Your task to perform on an android device: Open calendar and show me the second week of next month Image 0: 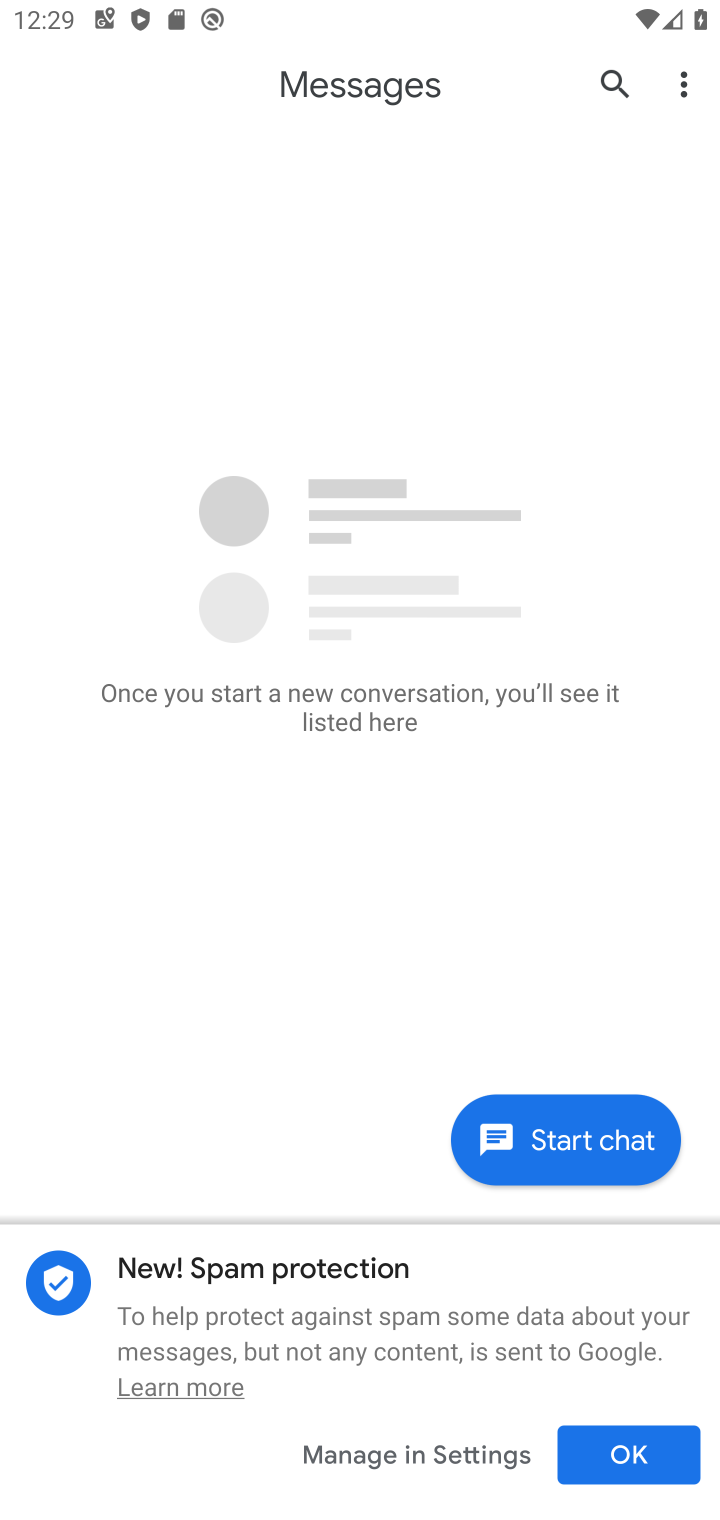
Step 0: press back button
Your task to perform on an android device: Open calendar and show me the second week of next month Image 1: 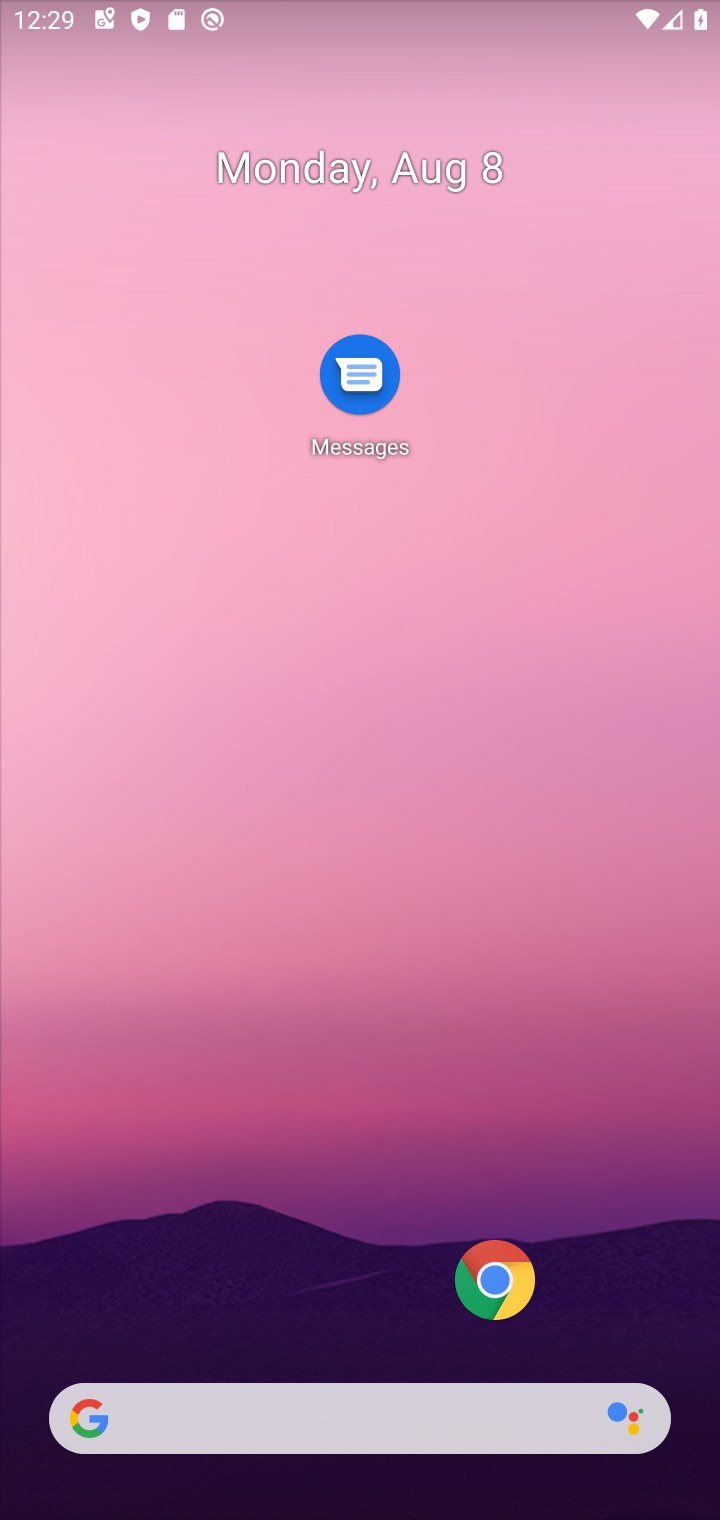
Step 1: drag from (305, 999) to (472, 2)
Your task to perform on an android device: Open calendar and show me the second week of next month Image 2: 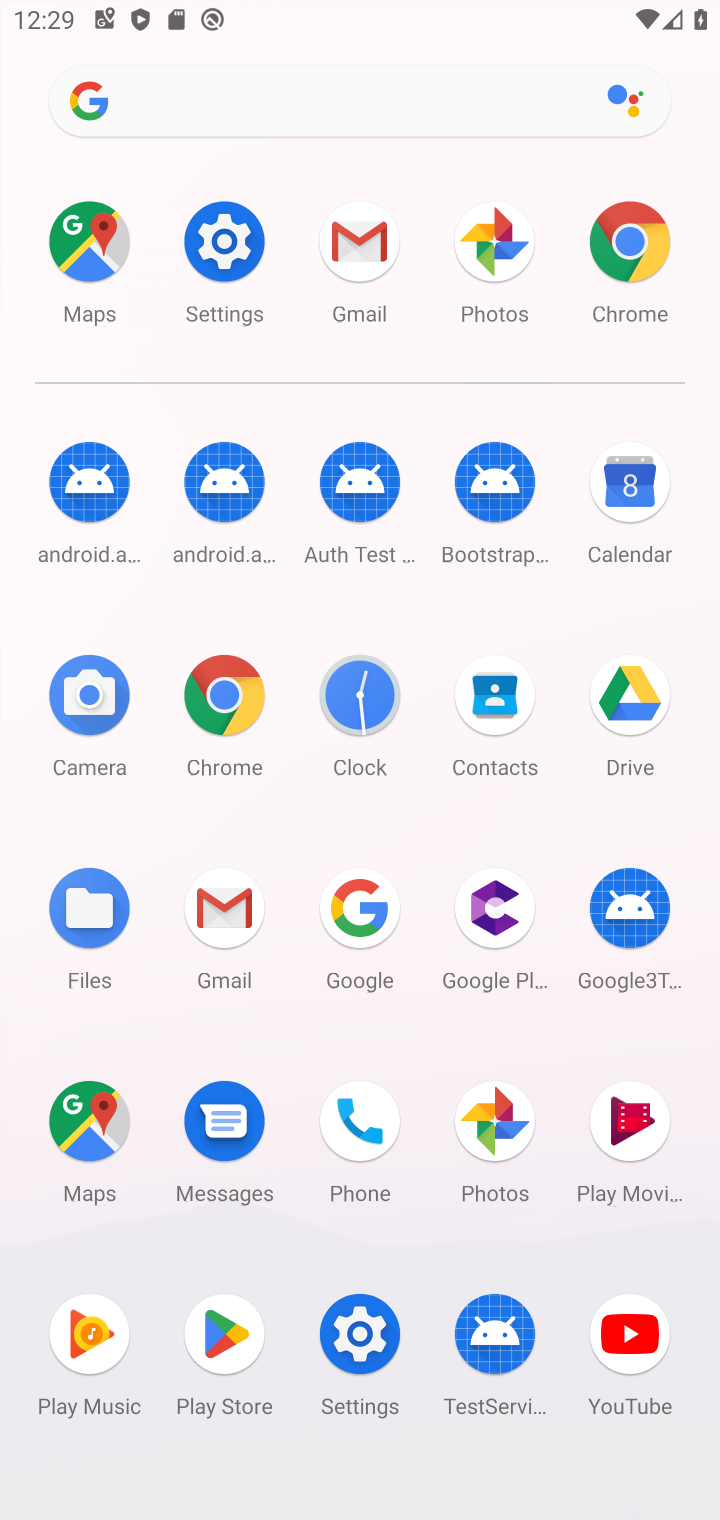
Step 2: click (624, 531)
Your task to perform on an android device: Open calendar and show me the second week of next month Image 3: 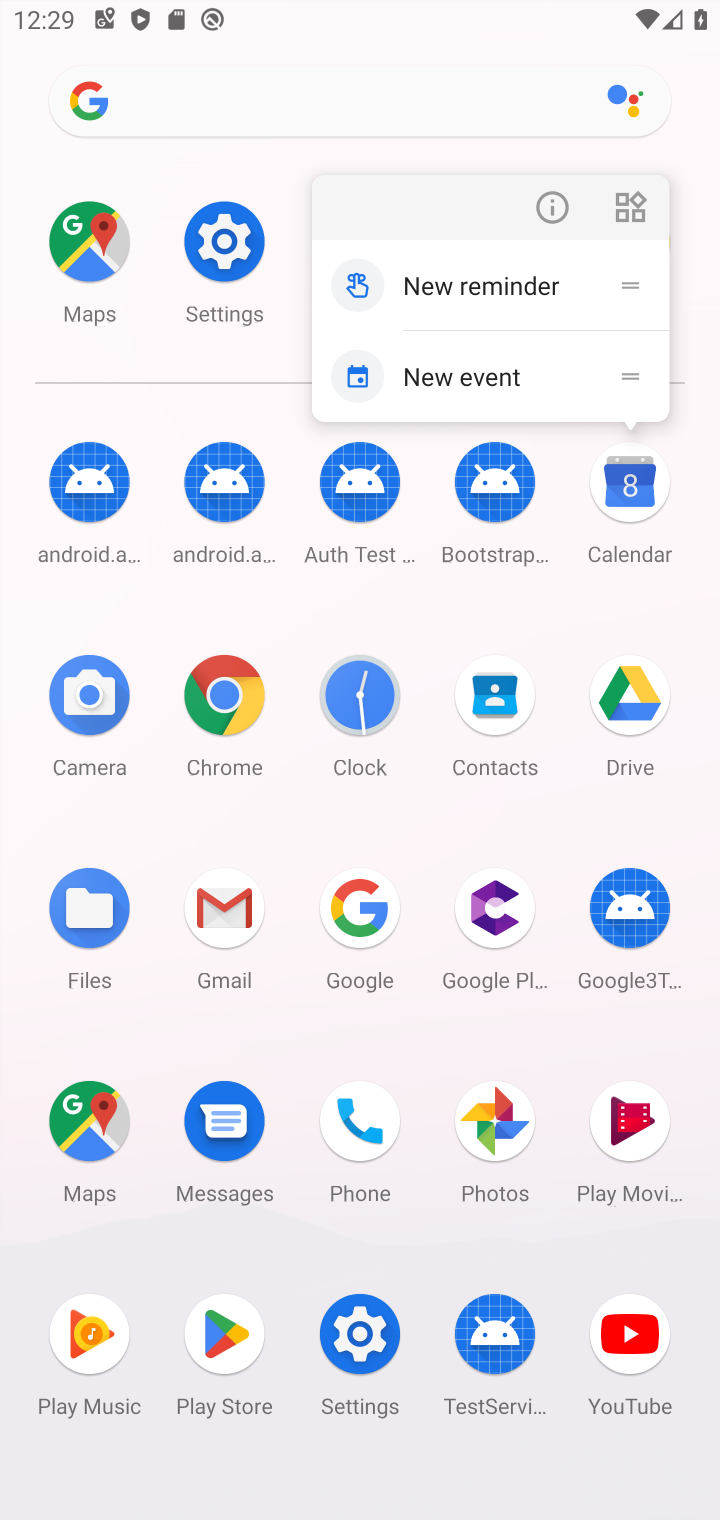
Step 3: click (650, 483)
Your task to perform on an android device: Open calendar and show me the second week of next month Image 4: 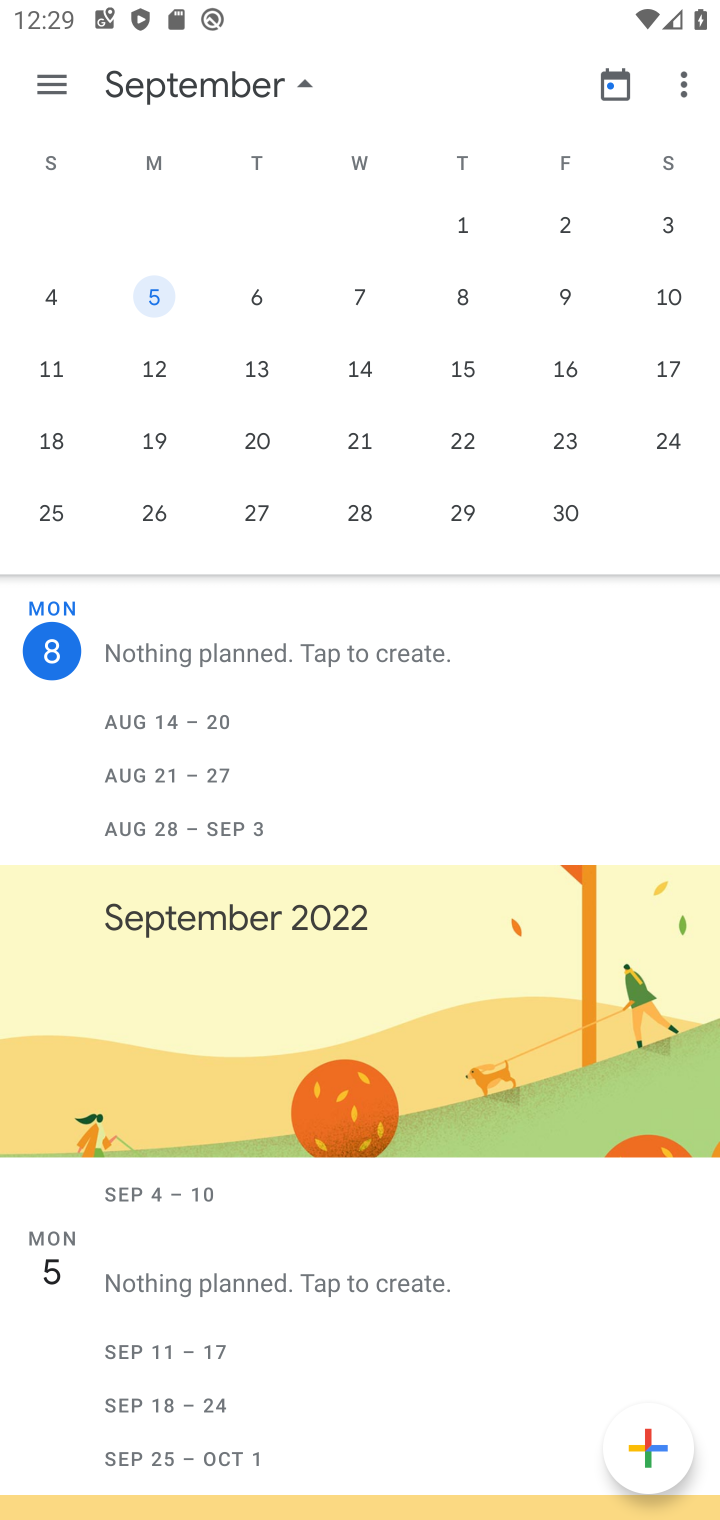
Step 4: click (667, 356)
Your task to perform on an android device: Open calendar and show me the second week of next month Image 5: 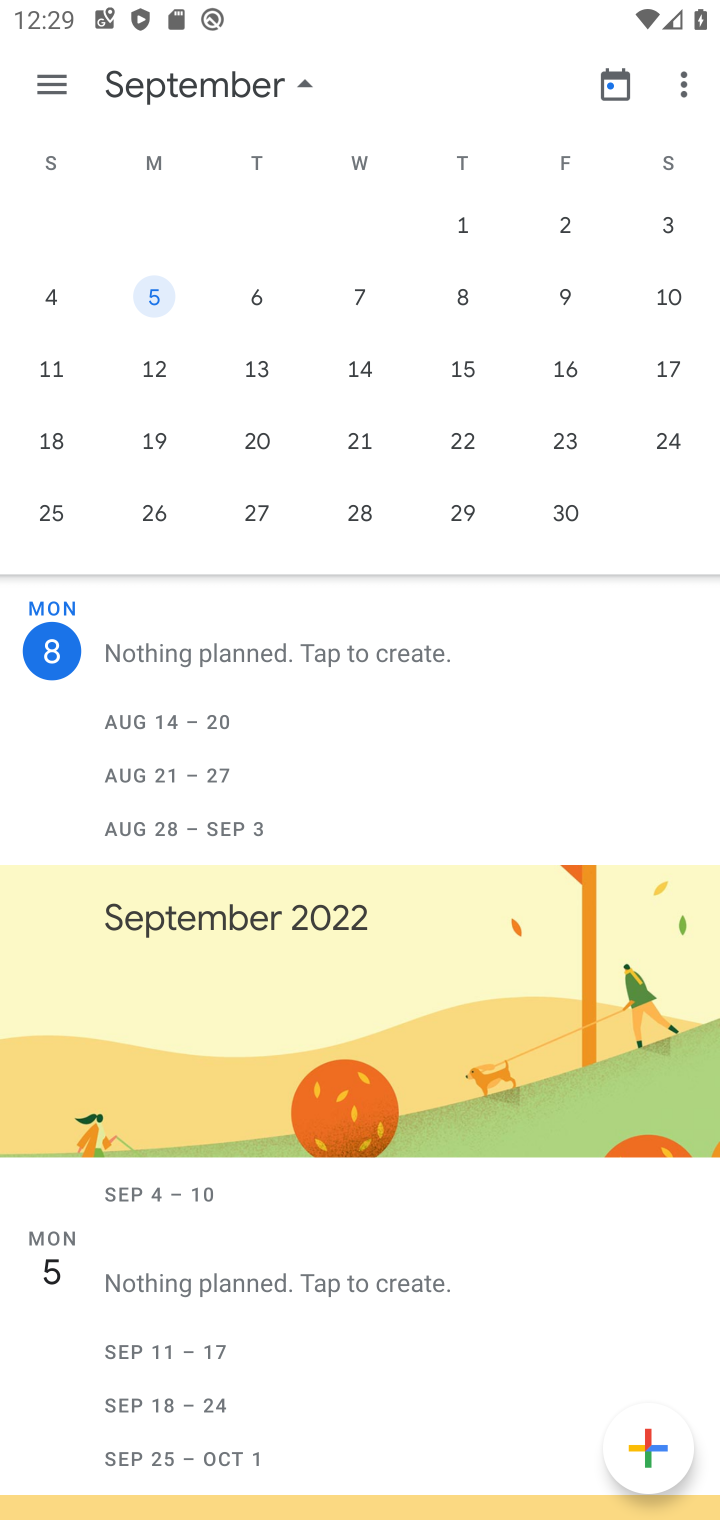
Step 5: click (155, 362)
Your task to perform on an android device: Open calendar and show me the second week of next month Image 6: 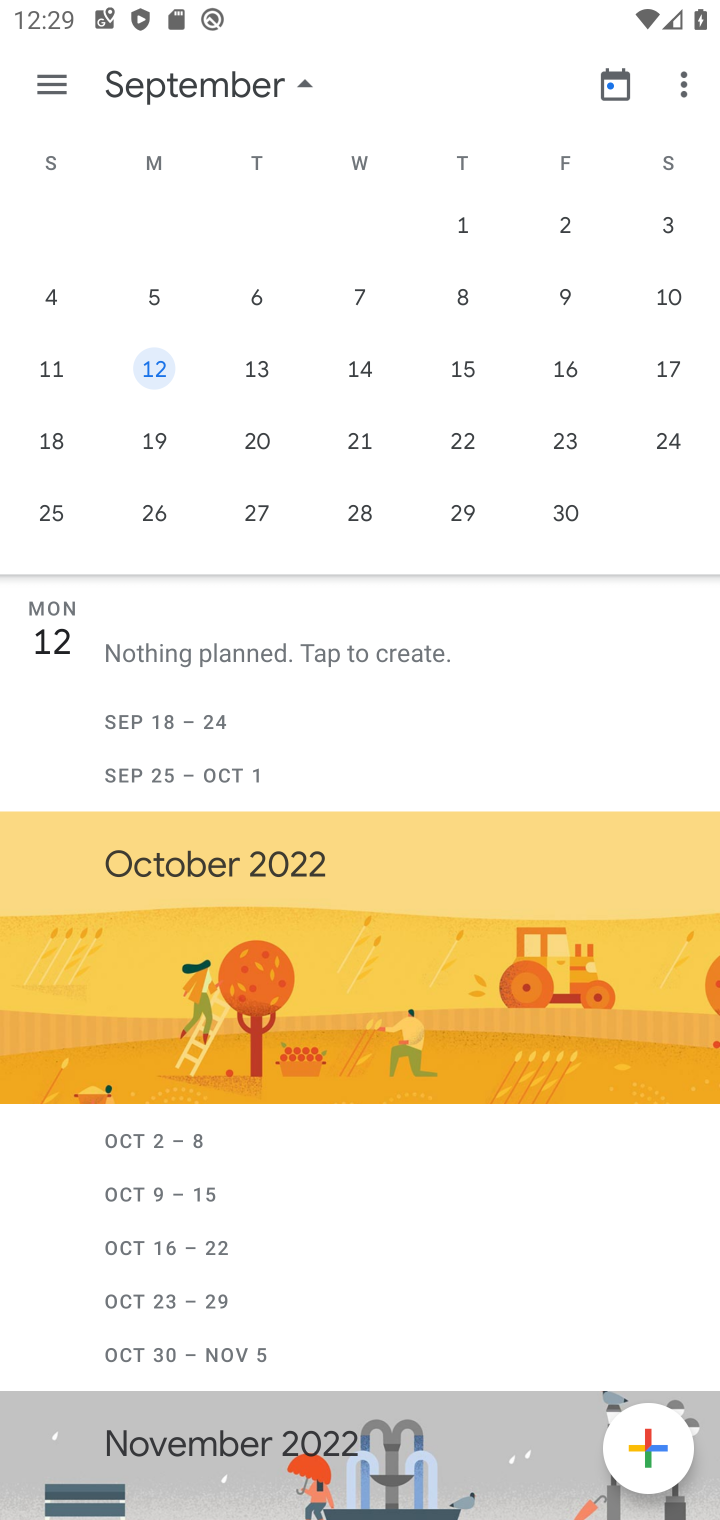
Step 6: click (161, 322)
Your task to perform on an android device: Open calendar and show me the second week of next month Image 7: 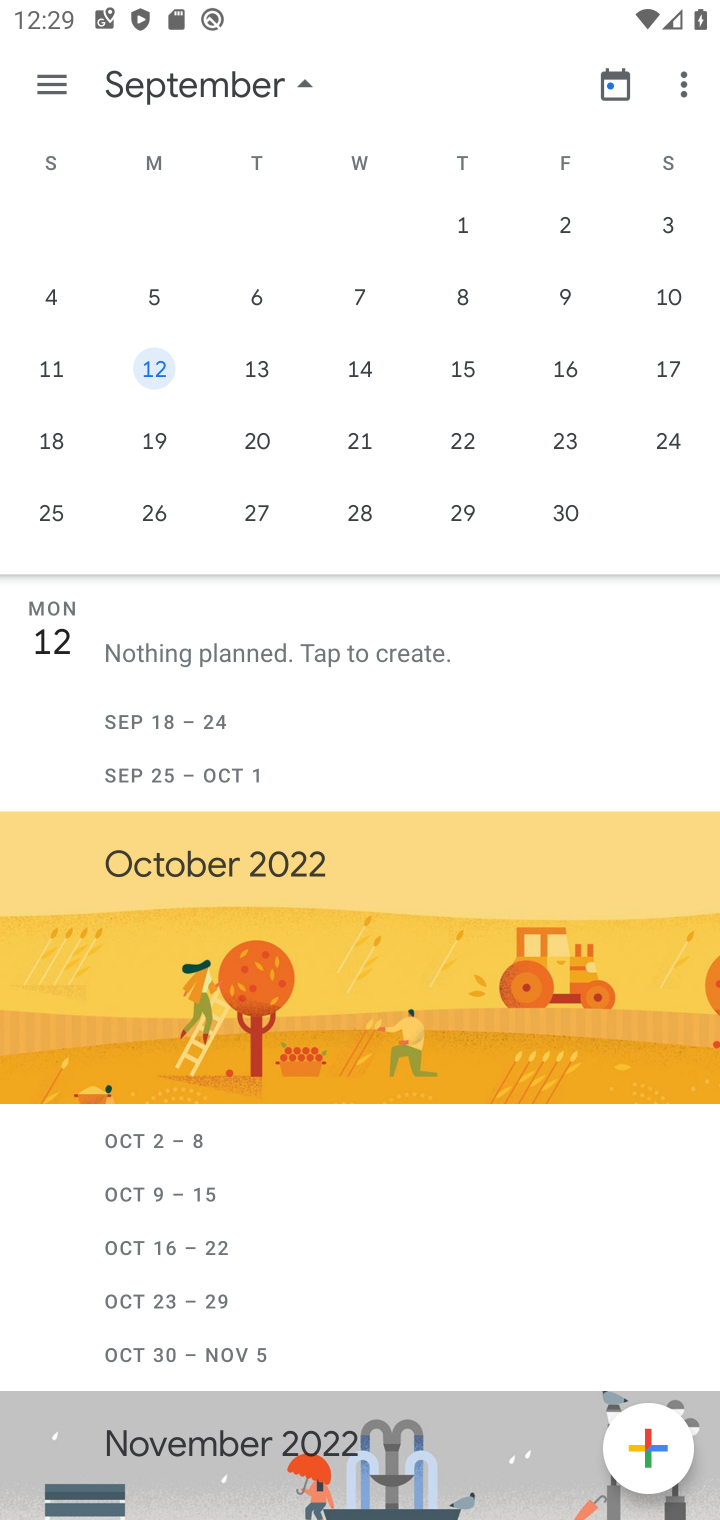
Step 7: click (153, 290)
Your task to perform on an android device: Open calendar and show me the second week of next month Image 8: 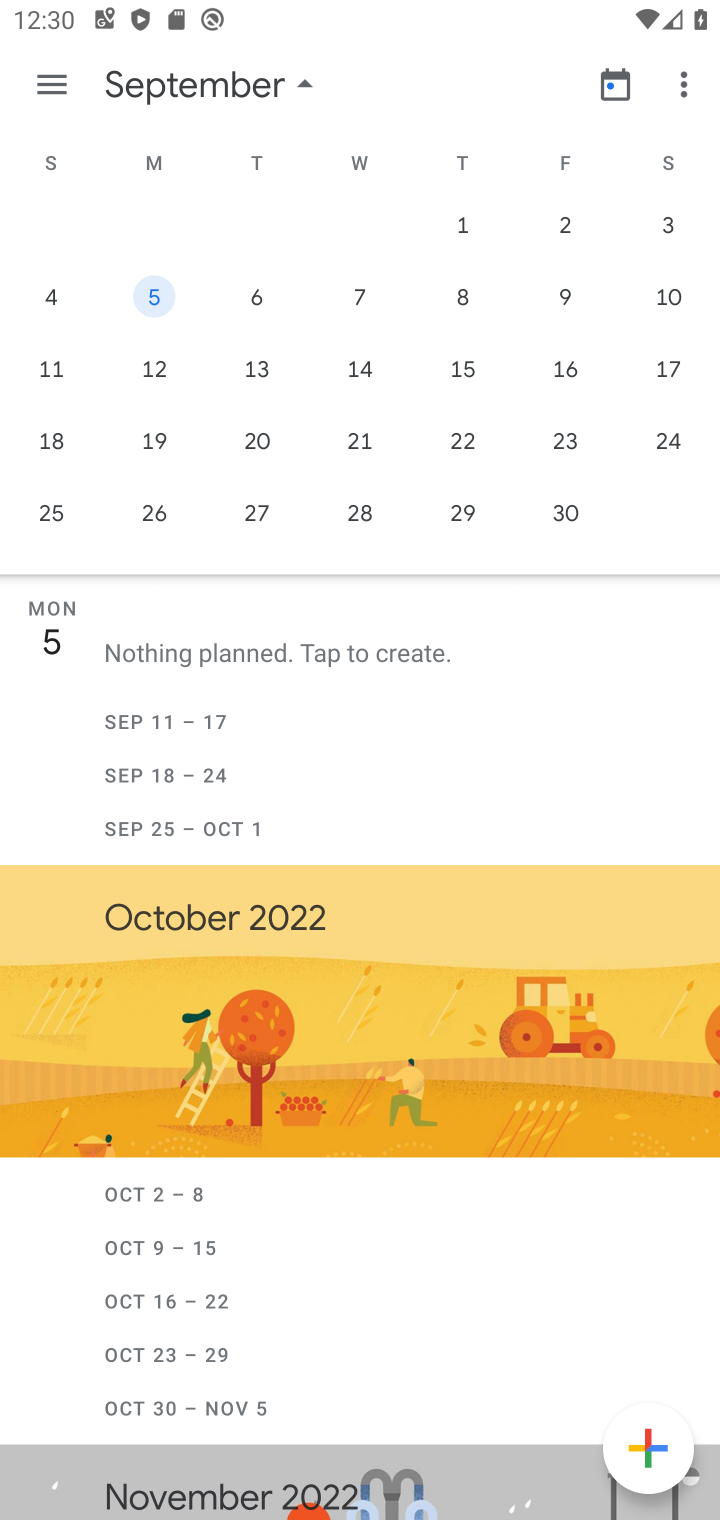
Step 8: task complete